Your task to perform on an android device: check data usage Image 0: 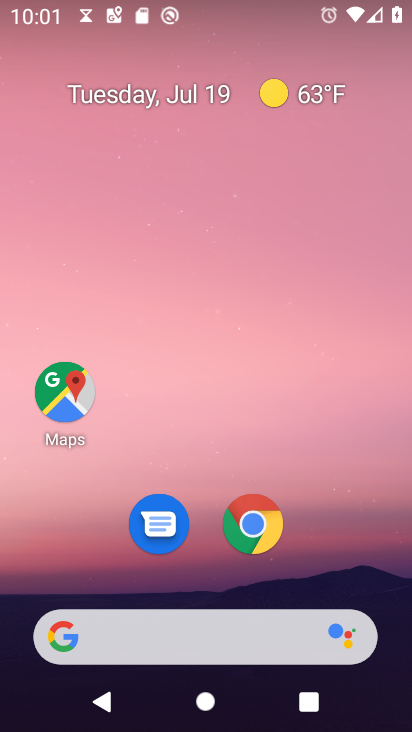
Step 0: drag from (192, 640) to (238, 74)
Your task to perform on an android device: check data usage Image 1: 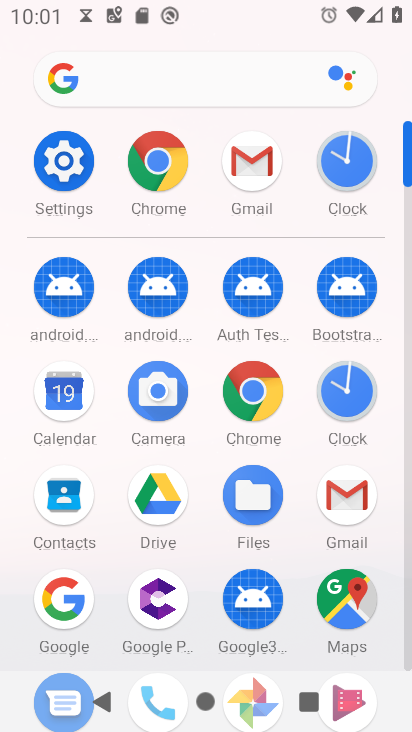
Step 1: click (73, 159)
Your task to perform on an android device: check data usage Image 2: 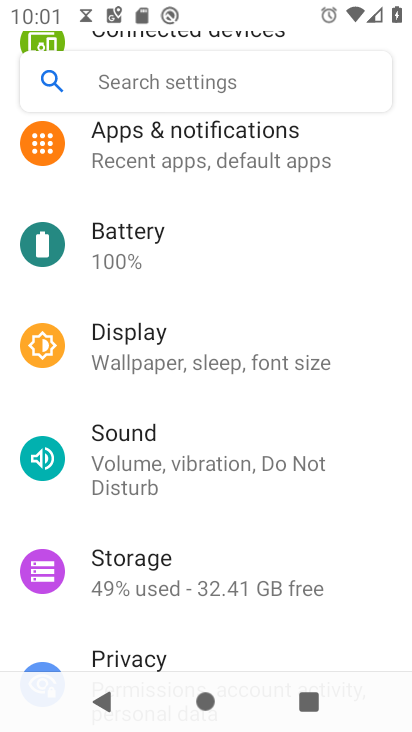
Step 2: drag from (352, 201) to (265, 643)
Your task to perform on an android device: check data usage Image 3: 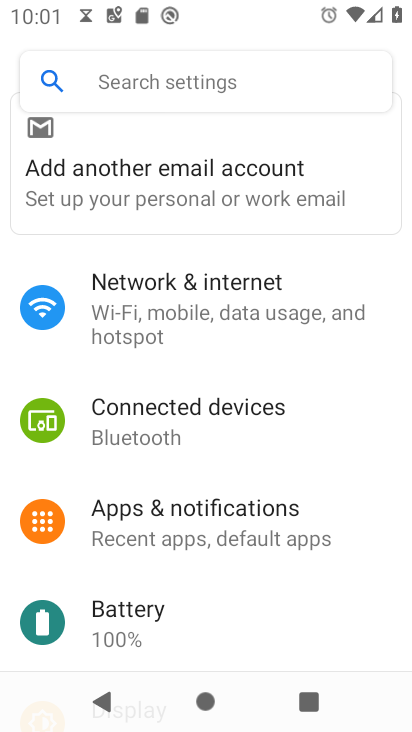
Step 3: click (182, 305)
Your task to perform on an android device: check data usage Image 4: 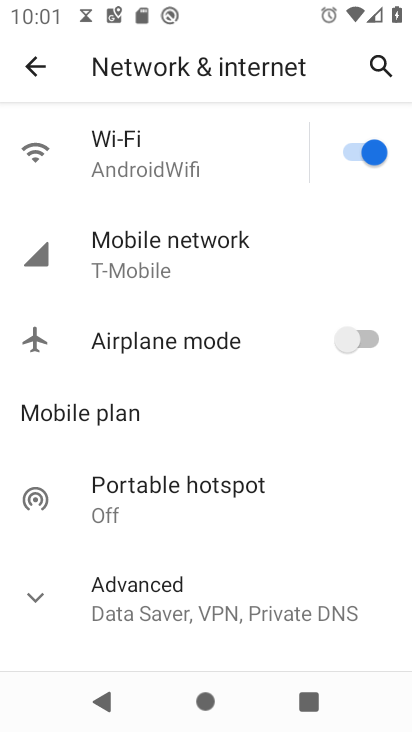
Step 4: click (141, 155)
Your task to perform on an android device: check data usage Image 5: 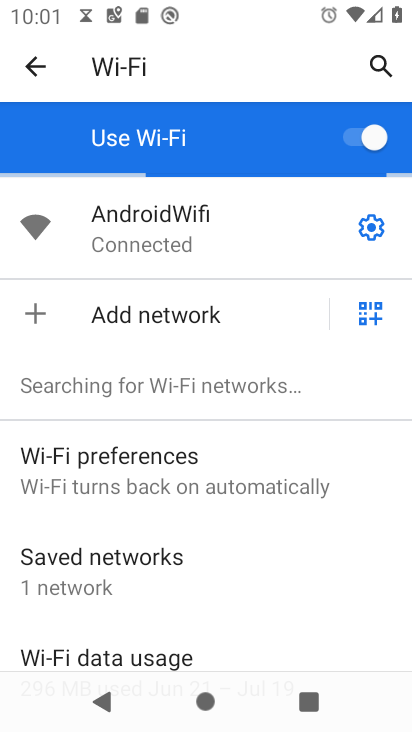
Step 5: drag from (214, 620) to (174, 270)
Your task to perform on an android device: check data usage Image 6: 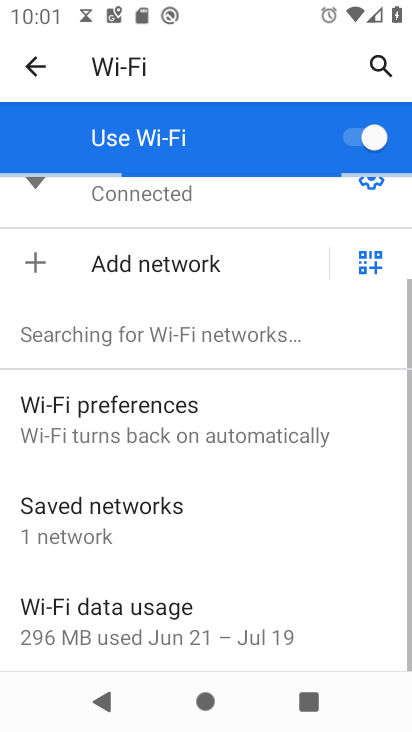
Step 6: click (123, 618)
Your task to perform on an android device: check data usage Image 7: 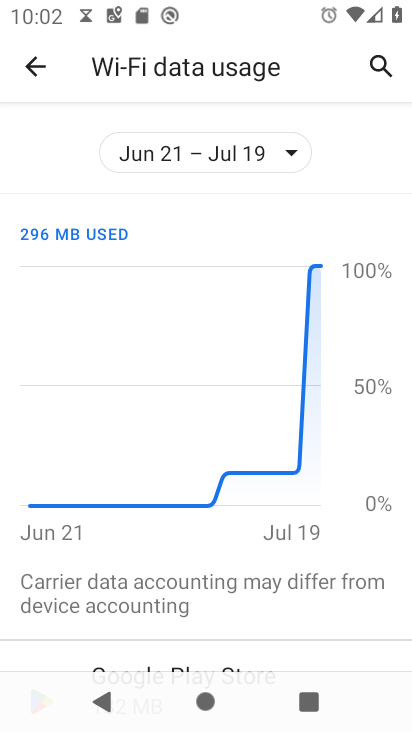
Step 7: task complete